Your task to perform on an android device: change text size in settings app Image 0: 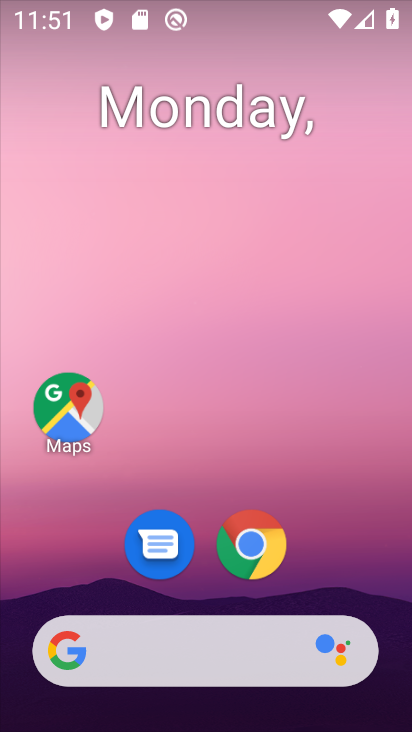
Step 0: drag from (344, 557) to (291, 149)
Your task to perform on an android device: change text size in settings app Image 1: 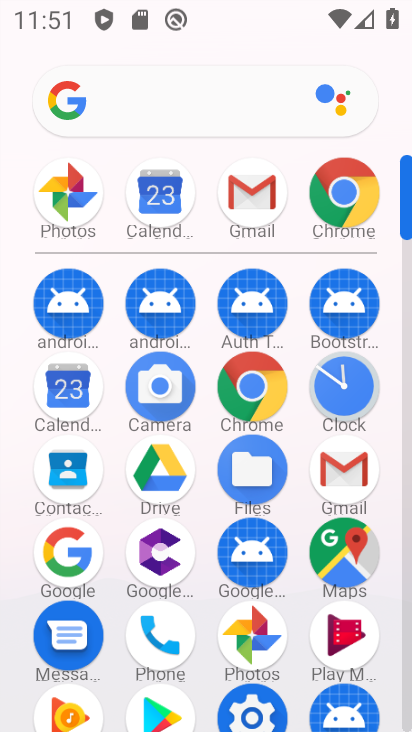
Step 1: drag from (295, 643) to (294, 205)
Your task to perform on an android device: change text size in settings app Image 2: 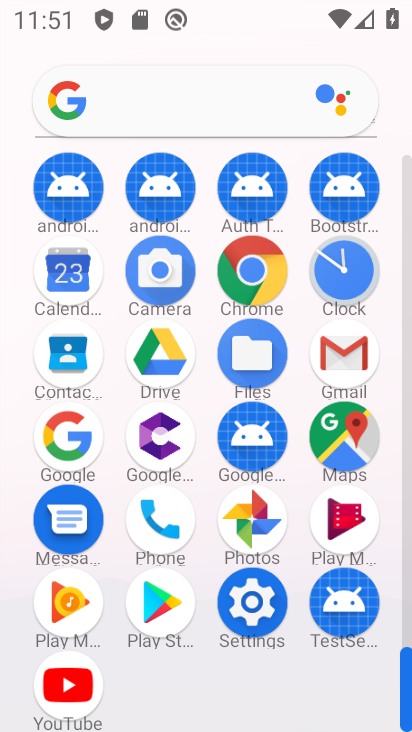
Step 2: click (248, 609)
Your task to perform on an android device: change text size in settings app Image 3: 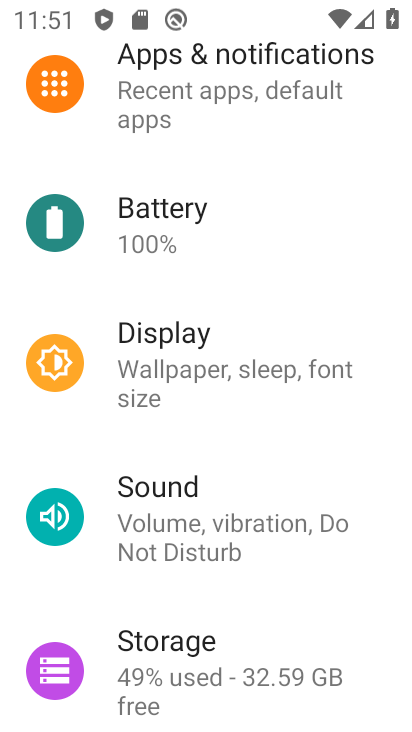
Step 3: click (179, 361)
Your task to perform on an android device: change text size in settings app Image 4: 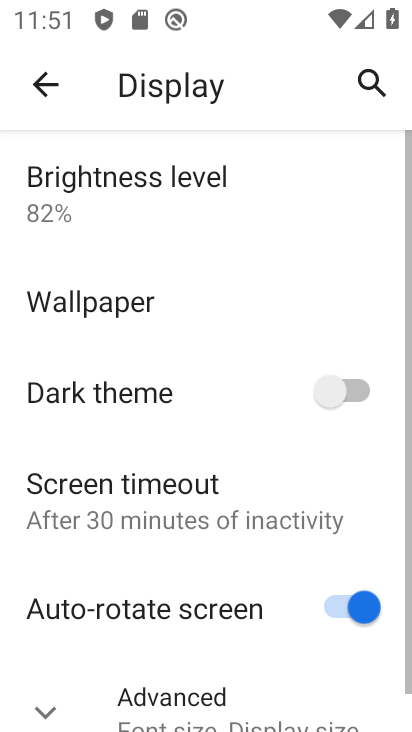
Step 4: drag from (169, 627) to (169, 258)
Your task to perform on an android device: change text size in settings app Image 5: 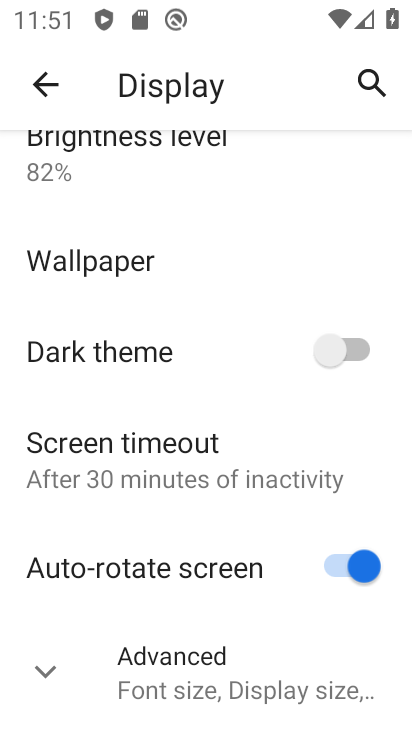
Step 5: click (175, 646)
Your task to perform on an android device: change text size in settings app Image 6: 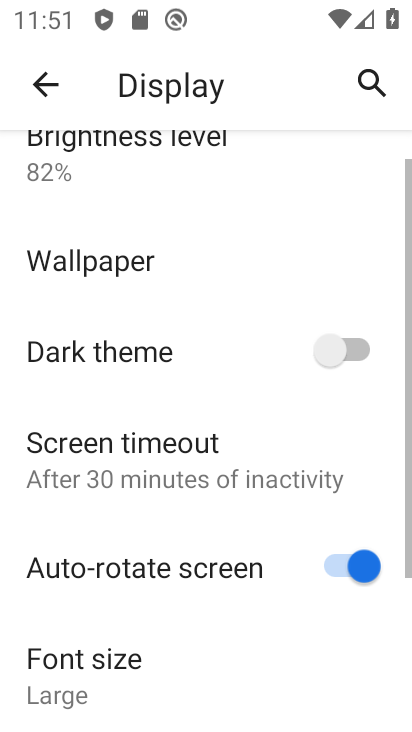
Step 6: drag from (178, 666) to (174, 371)
Your task to perform on an android device: change text size in settings app Image 7: 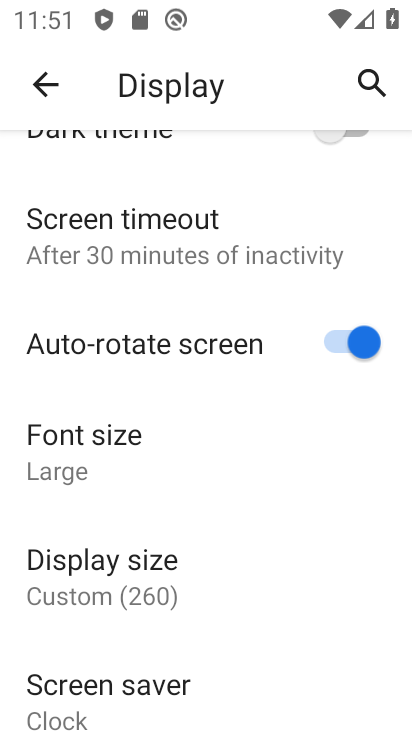
Step 7: click (140, 447)
Your task to perform on an android device: change text size in settings app Image 8: 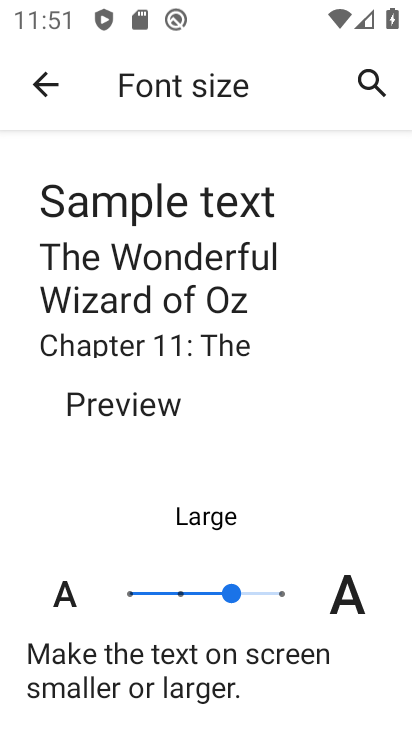
Step 8: task complete